Your task to perform on an android device: Go to Android settings Image 0: 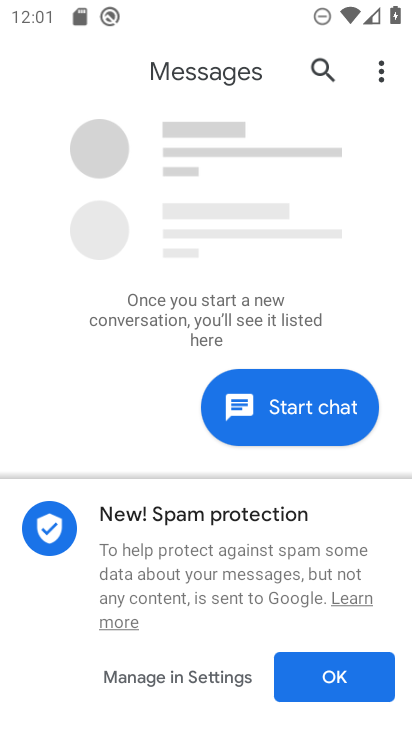
Step 0: press home button
Your task to perform on an android device: Go to Android settings Image 1: 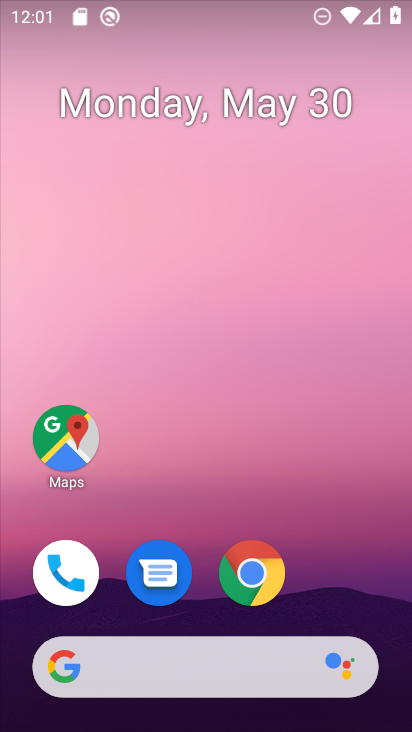
Step 1: drag from (330, 543) to (275, 138)
Your task to perform on an android device: Go to Android settings Image 2: 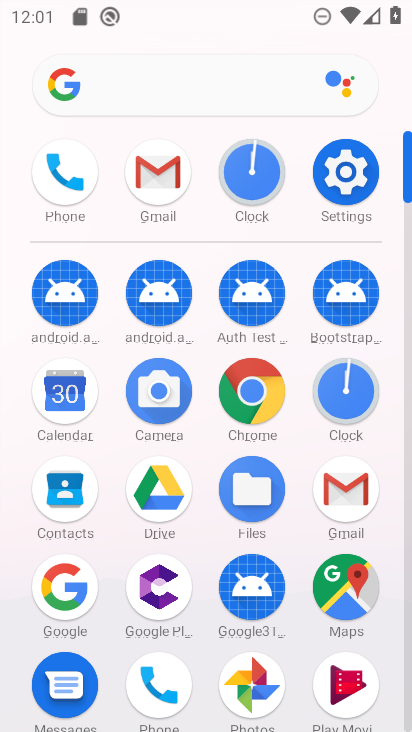
Step 2: click (334, 194)
Your task to perform on an android device: Go to Android settings Image 3: 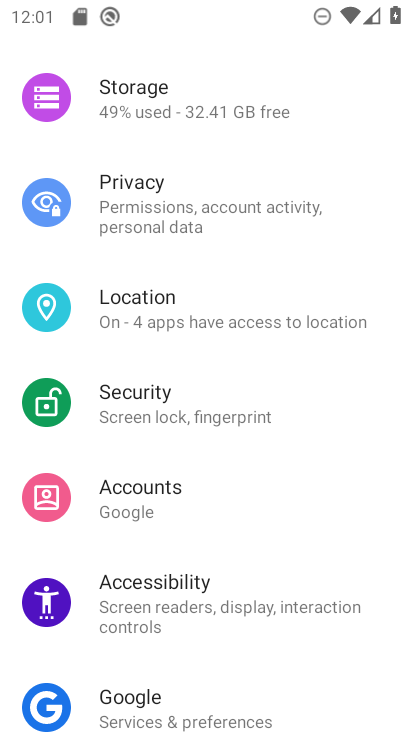
Step 3: task complete